Your task to perform on an android device: Show me the alarms in the clock app Image 0: 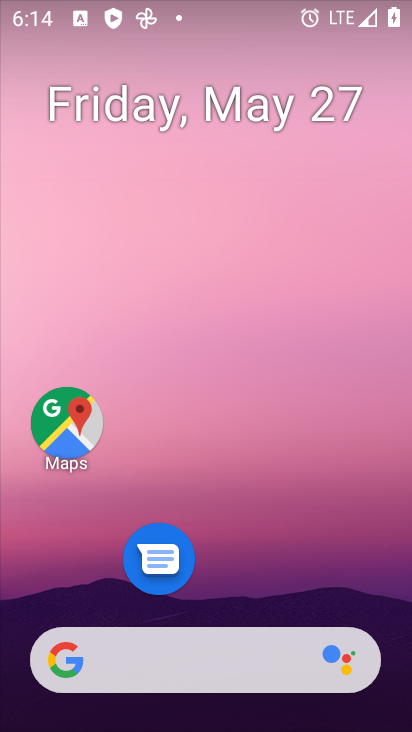
Step 0: drag from (318, 613) to (348, 24)
Your task to perform on an android device: Show me the alarms in the clock app Image 1: 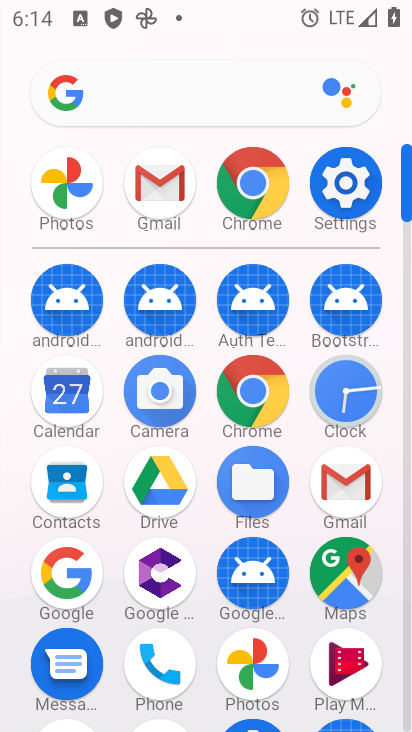
Step 1: click (344, 387)
Your task to perform on an android device: Show me the alarms in the clock app Image 2: 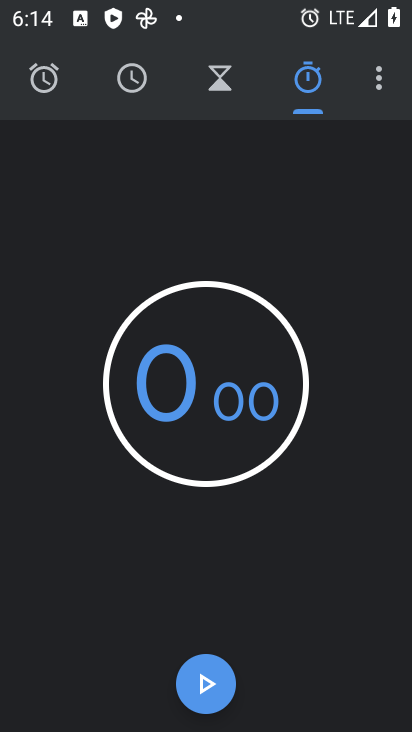
Step 2: click (66, 72)
Your task to perform on an android device: Show me the alarms in the clock app Image 3: 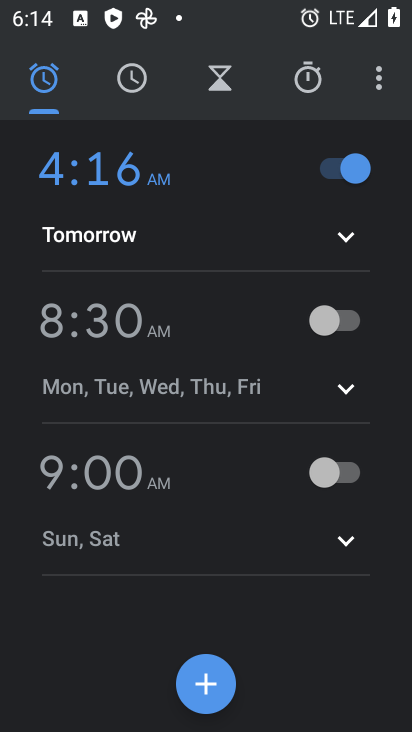
Step 3: task complete